Your task to perform on an android device: What's the weather? Image 0: 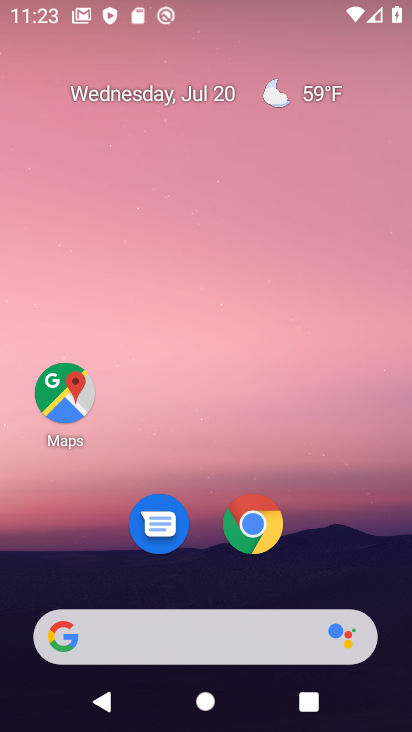
Step 0: press home button
Your task to perform on an android device: What's the weather? Image 1: 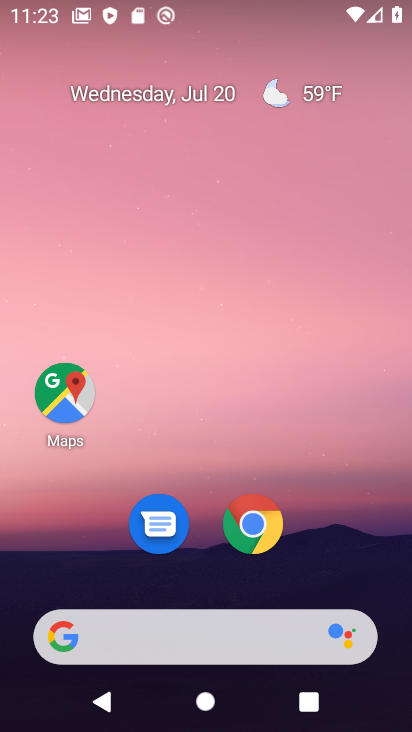
Step 1: click (159, 643)
Your task to perform on an android device: What's the weather? Image 2: 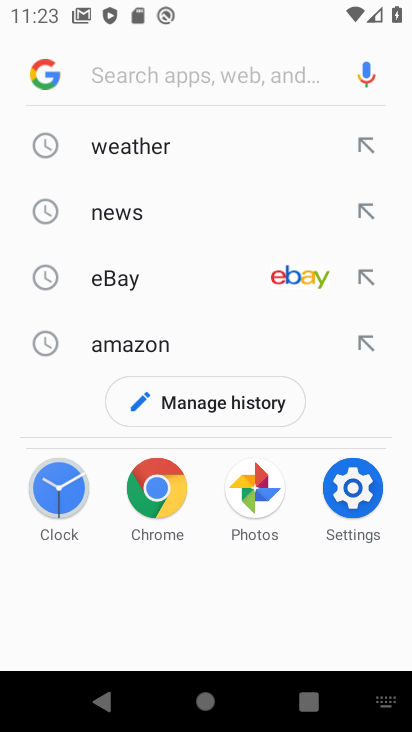
Step 2: click (132, 143)
Your task to perform on an android device: What's the weather? Image 3: 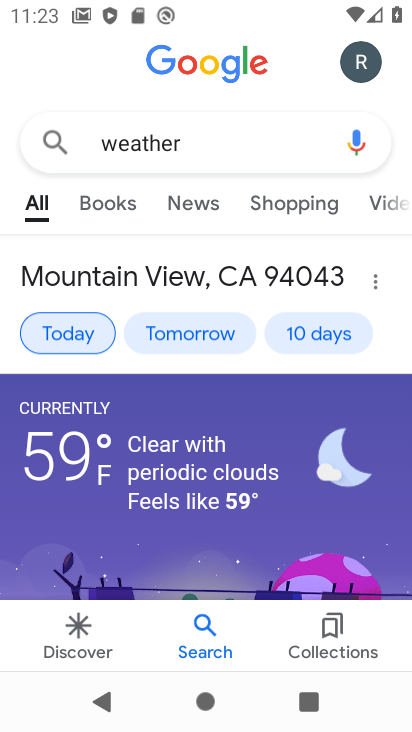
Step 3: task complete